Your task to perform on an android device: Empty the shopping cart on newegg. Search for usb-c to usb-a on newegg, select the first entry, and add it to the cart. Image 0: 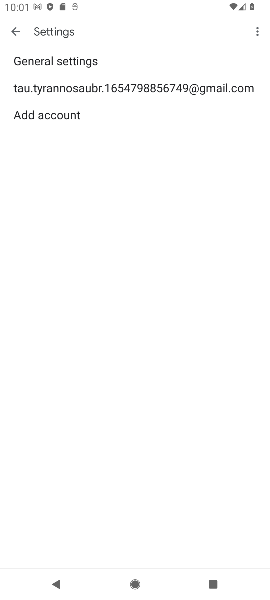
Step 0: press home button
Your task to perform on an android device: Empty the shopping cart on newegg. Search for usb-c to usb-a on newegg, select the first entry, and add it to the cart. Image 1: 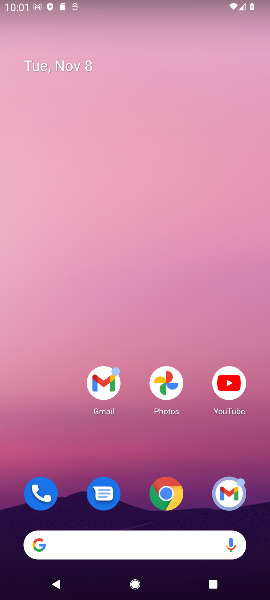
Step 1: click (166, 503)
Your task to perform on an android device: Empty the shopping cart on newegg. Search for usb-c to usb-a on newegg, select the first entry, and add it to the cart. Image 2: 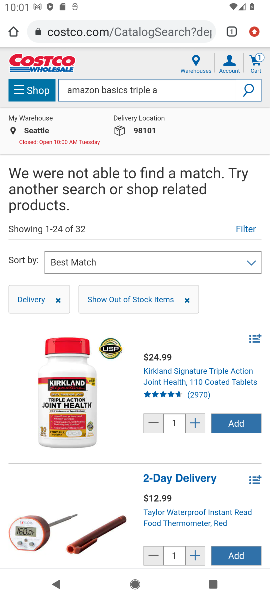
Step 2: click (104, 30)
Your task to perform on an android device: Empty the shopping cart on newegg. Search for usb-c to usb-a on newegg, select the first entry, and add it to the cart. Image 3: 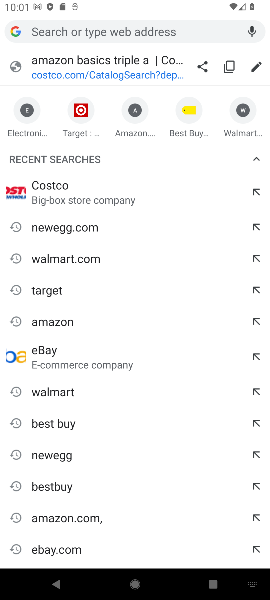
Step 3: click (55, 225)
Your task to perform on an android device: Empty the shopping cart on newegg. Search for usb-c to usb-a on newegg, select the first entry, and add it to the cart. Image 4: 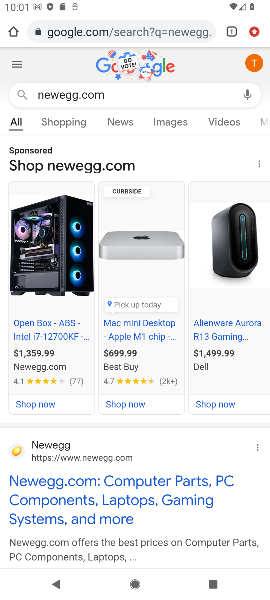
Step 4: click (69, 467)
Your task to perform on an android device: Empty the shopping cart on newegg. Search for usb-c to usb-a on newegg, select the first entry, and add it to the cart. Image 5: 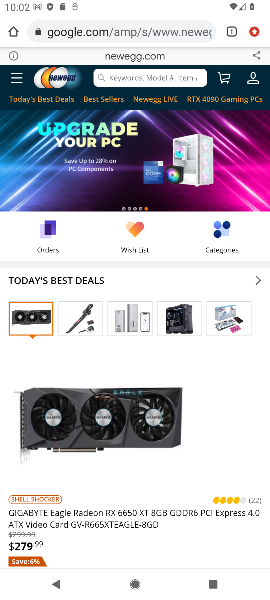
Step 5: click (226, 83)
Your task to perform on an android device: Empty the shopping cart on newegg. Search for usb-c to usb-a on newegg, select the first entry, and add it to the cart. Image 6: 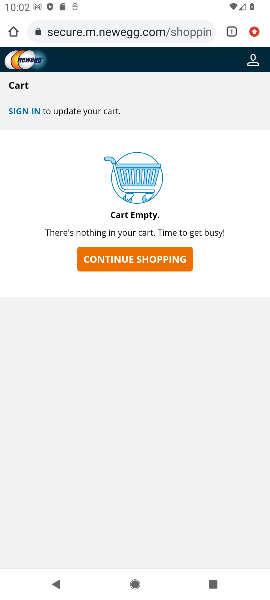
Step 6: click (141, 267)
Your task to perform on an android device: Empty the shopping cart on newegg. Search for usb-c to usb-a on newegg, select the first entry, and add it to the cart. Image 7: 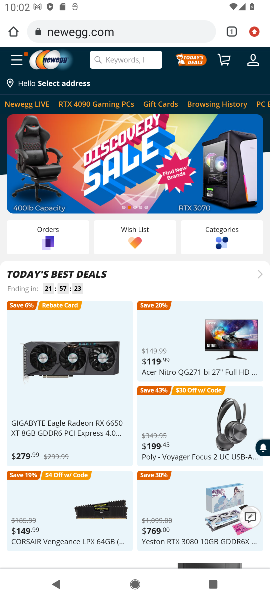
Step 7: click (116, 65)
Your task to perform on an android device: Empty the shopping cart on newegg. Search for usb-c to usb-a on newegg, select the first entry, and add it to the cart. Image 8: 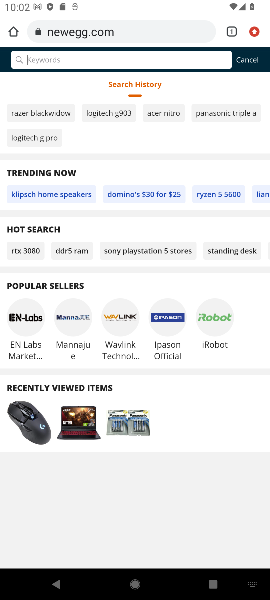
Step 8: type " usb-c to usb-a"
Your task to perform on an android device: Empty the shopping cart on newegg. Search for usb-c to usb-a on newegg, select the first entry, and add it to the cart. Image 9: 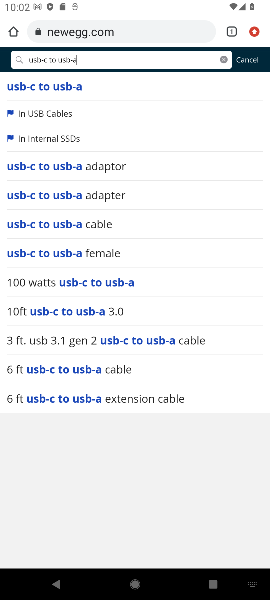
Step 9: click (32, 82)
Your task to perform on an android device: Empty the shopping cart on newegg. Search for usb-c to usb-a on newegg, select the first entry, and add it to the cart. Image 10: 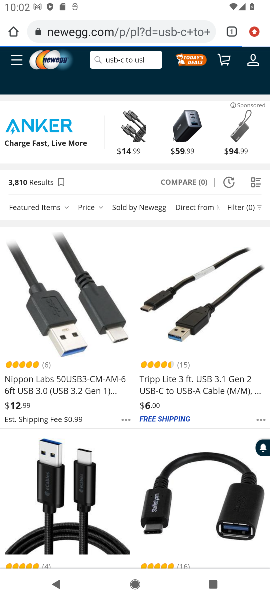
Step 10: click (33, 88)
Your task to perform on an android device: Empty the shopping cart on newegg. Search for usb-c to usb-a on newegg, select the first entry, and add it to the cart. Image 11: 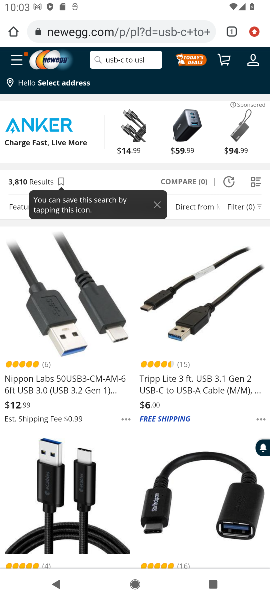
Step 11: click (57, 335)
Your task to perform on an android device: Empty the shopping cart on newegg. Search for usb-c to usb-a on newegg, select the first entry, and add it to the cart. Image 12: 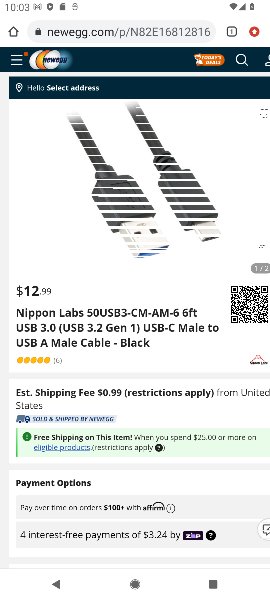
Step 12: drag from (137, 461) to (140, 220)
Your task to perform on an android device: Empty the shopping cart on newegg. Search for usb-c to usb-a on newegg, select the first entry, and add it to the cart. Image 13: 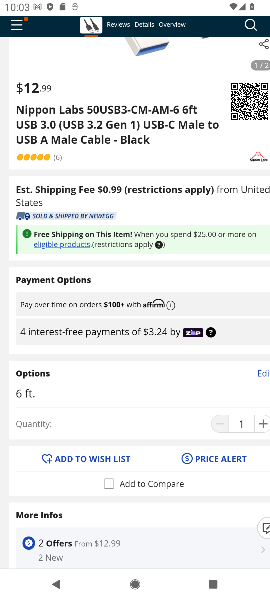
Step 13: drag from (124, 289) to (144, 438)
Your task to perform on an android device: Empty the shopping cart on newegg. Search for usb-c to usb-a on newegg, select the first entry, and add it to the cart. Image 14: 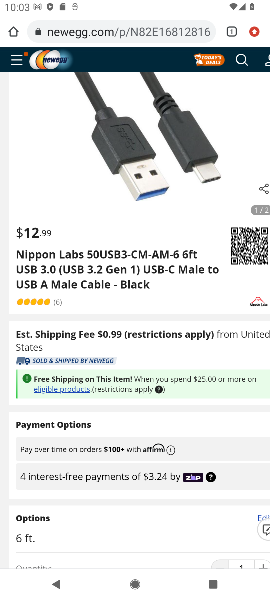
Step 14: drag from (144, 534) to (106, 253)
Your task to perform on an android device: Empty the shopping cart on newegg. Search for usb-c to usb-a on newegg, select the first entry, and add it to the cart. Image 15: 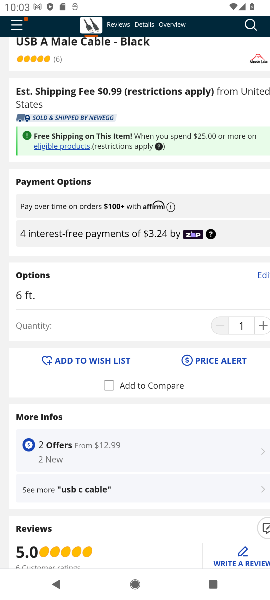
Step 15: drag from (139, 526) to (132, 378)
Your task to perform on an android device: Empty the shopping cart on newegg. Search for usb-c to usb-a on newegg, select the first entry, and add it to the cart. Image 16: 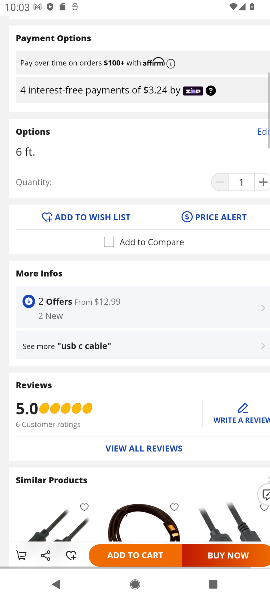
Step 16: click (159, 554)
Your task to perform on an android device: Empty the shopping cart on newegg. Search for usb-c to usb-a on newegg, select the first entry, and add it to the cart. Image 17: 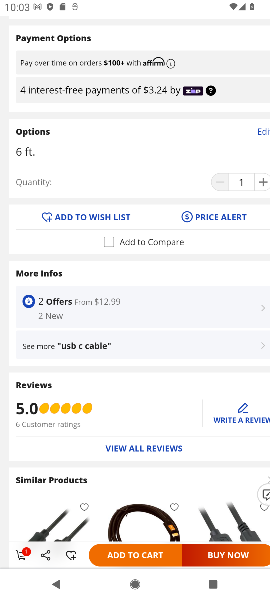
Step 17: task complete